Your task to perform on an android device: What is the news today? Image 0: 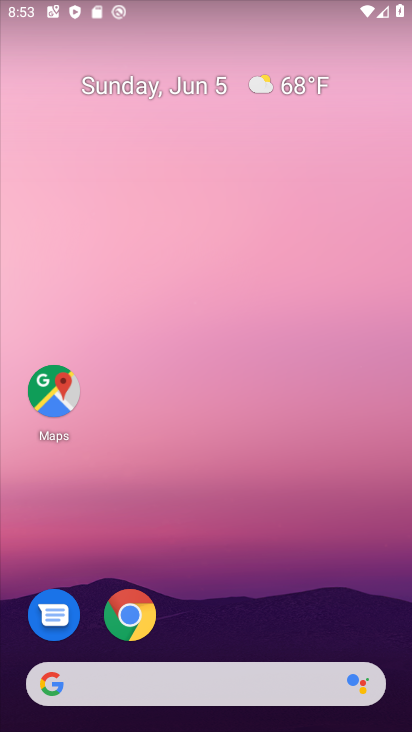
Step 0: click (255, 688)
Your task to perform on an android device: What is the news today? Image 1: 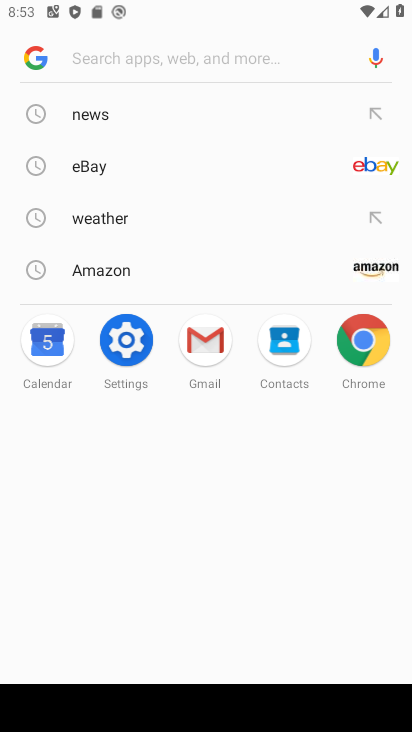
Step 1: click (116, 118)
Your task to perform on an android device: What is the news today? Image 2: 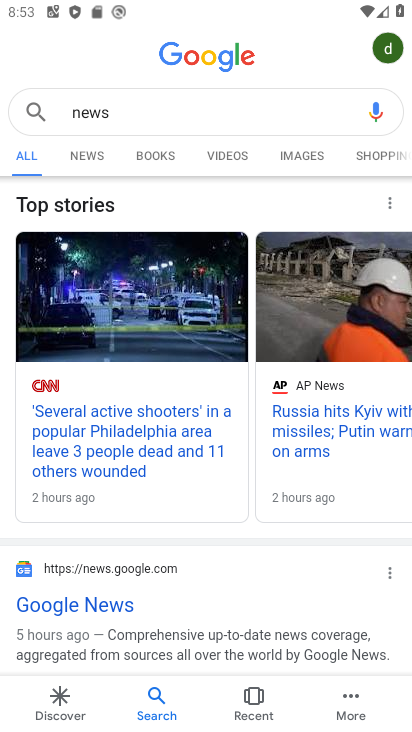
Step 2: task complete